Your task to perform on an android device: What's the weather going to be tomorrow? Image 0: 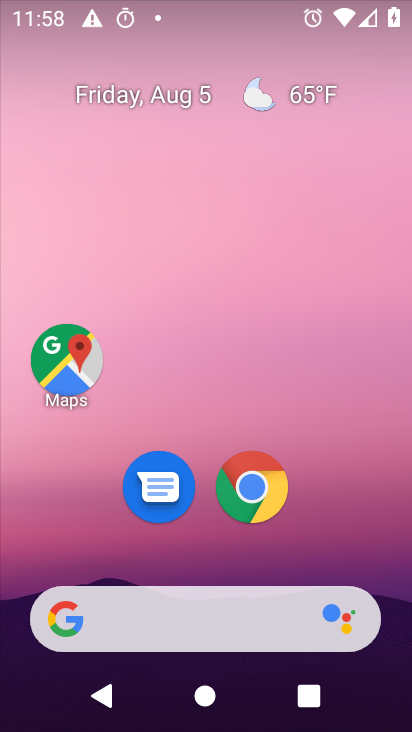
Step 0: click (173, 615)
Your task to perform on an android device: What's the weather going to be tomorrow? Image 1: 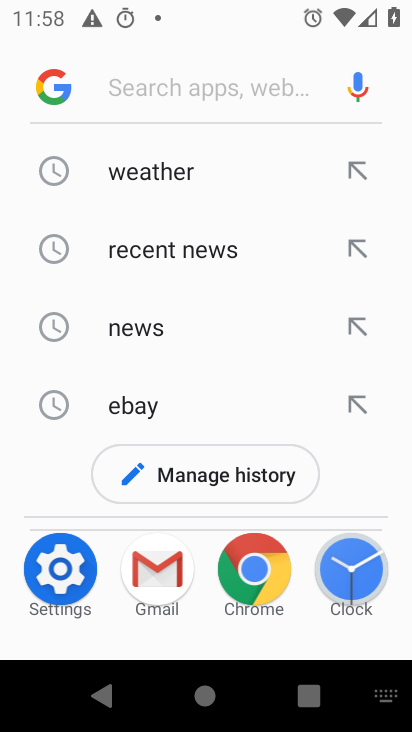
Step 1: click (150, 178)
Your task to perform on an android device: What's the weather going to be tomorrow? Image 2: 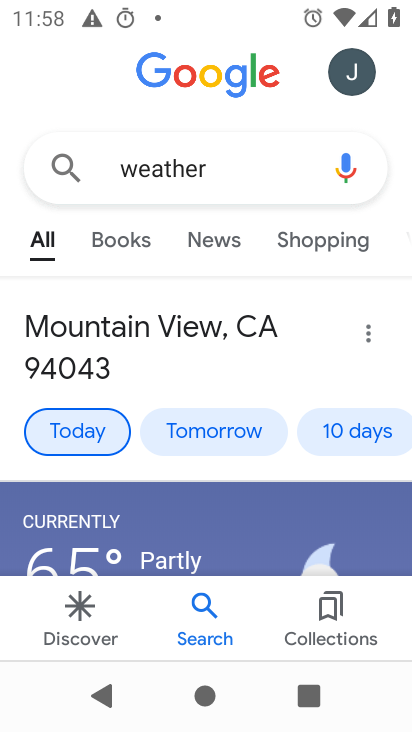
Step 2: click (223, 430)
Your task to perform on an android device: What's the weather going to be tomorrow? Image 3: 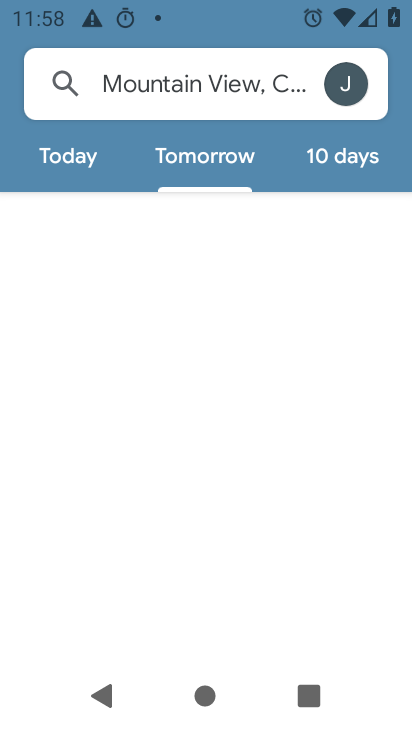
Step 3: task complete